Your task to perform on an android device: open the mobile data screen to see how much data has been used Image 0: 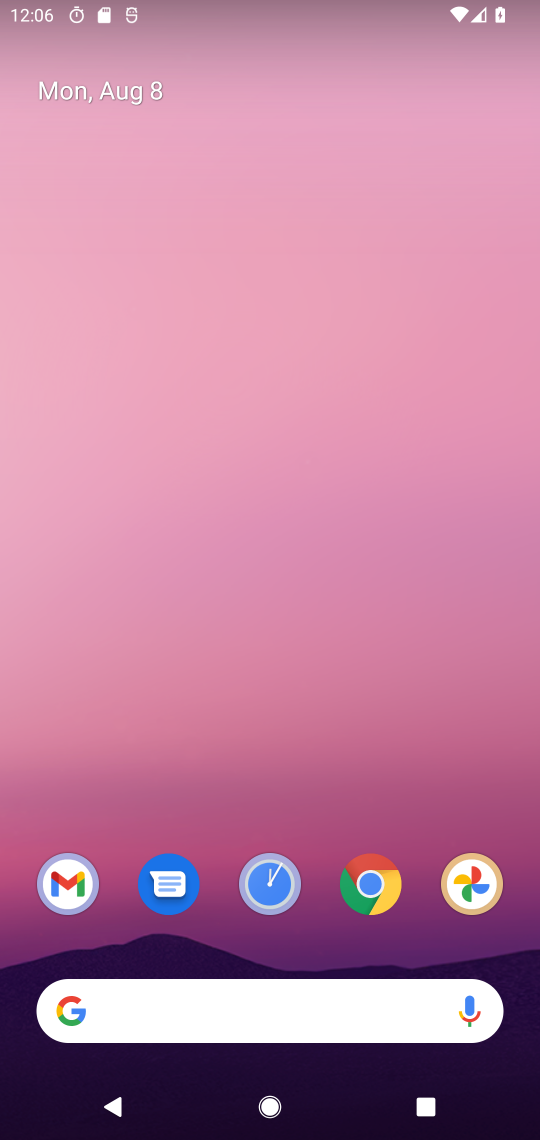
Step 0: drag from (274, 761) to (274, 225)
Your task to perform on an android device: open the mobile data screen to see how much data has been used Image 1: 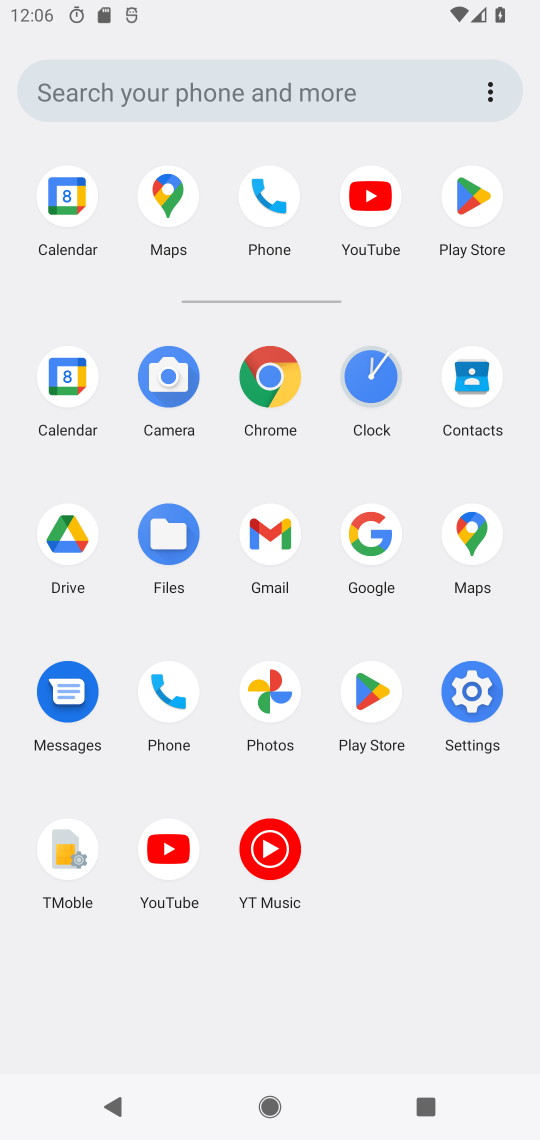
Step 1: click (476, 698)
Your task to perform on an android device: open the mobile data screen to see how much data has been used Image 2: 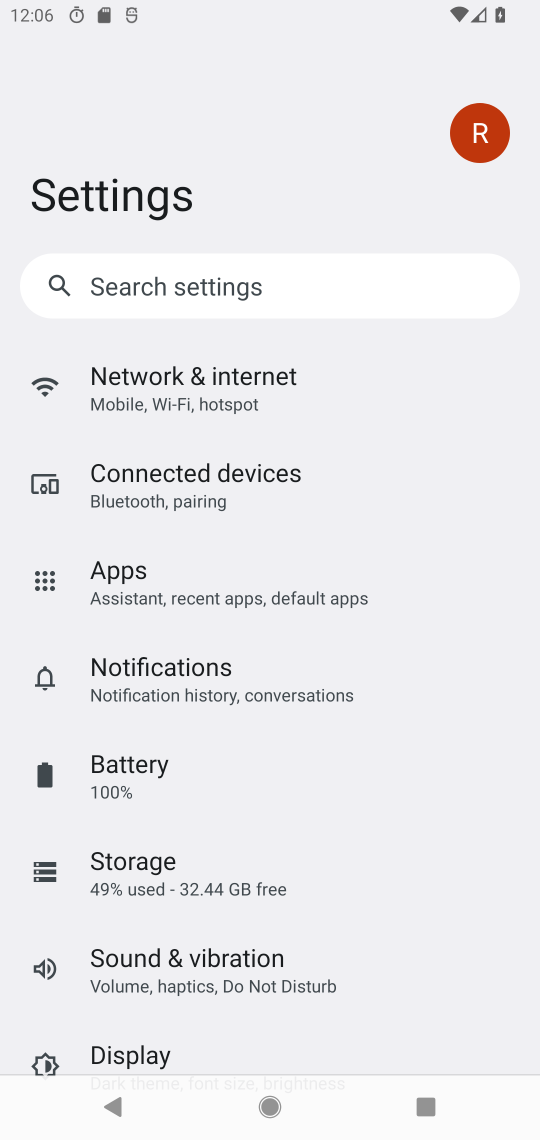
Step 2: click (167, 390)
Your task to perform on an android device: open the mobile data screen to see how much data has been used Image 3: 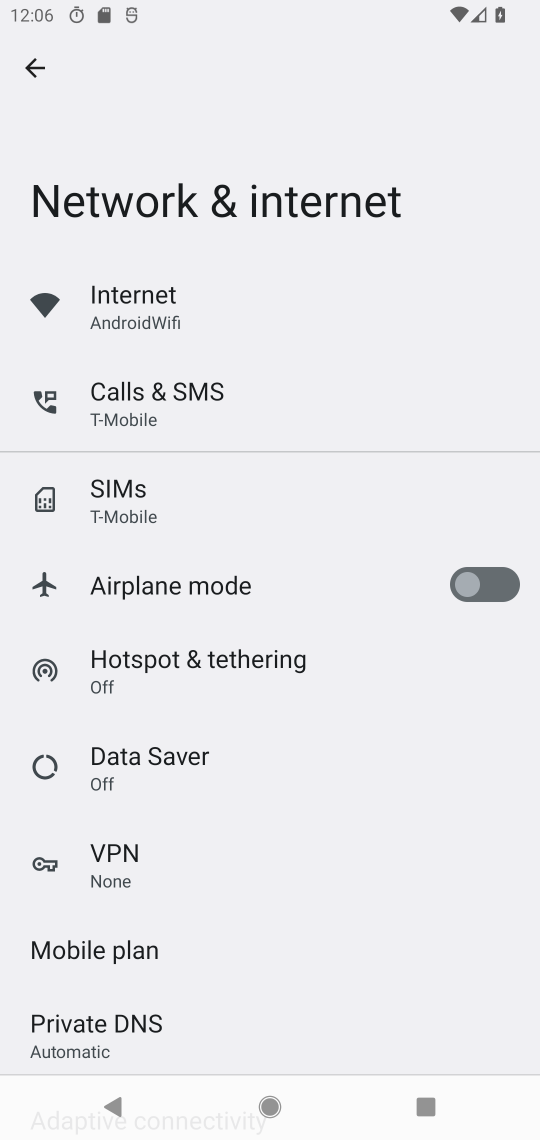
Step 3: click (129, 311)
Your task to perform on an android device: open the mobile data screen to see how much data has been used Image 4: 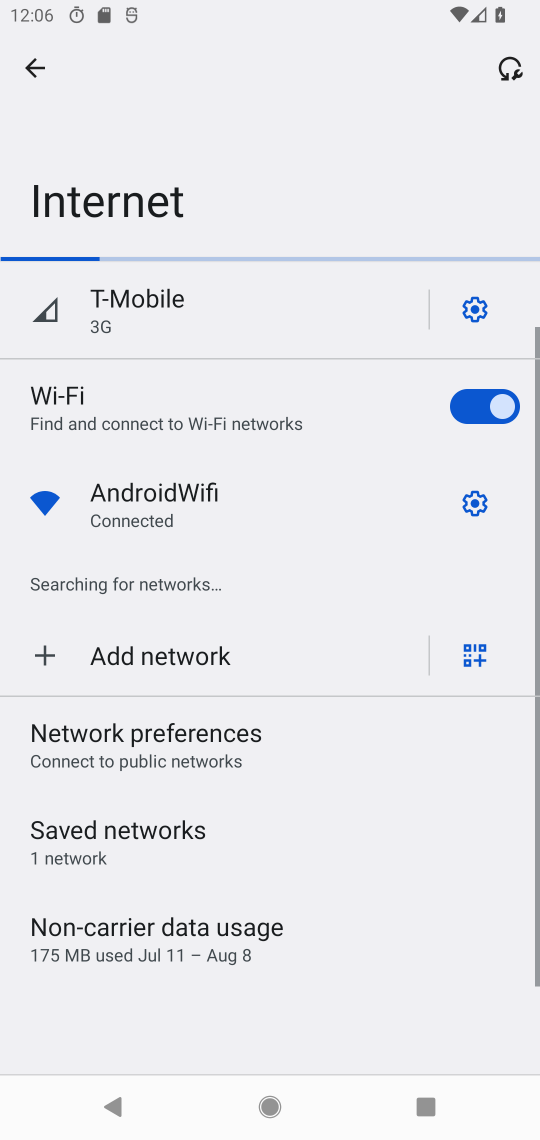
Step 4: click (159, 920)
Your task to perform on an android device: open the mobile data screen to see how much data has been used Image 5: 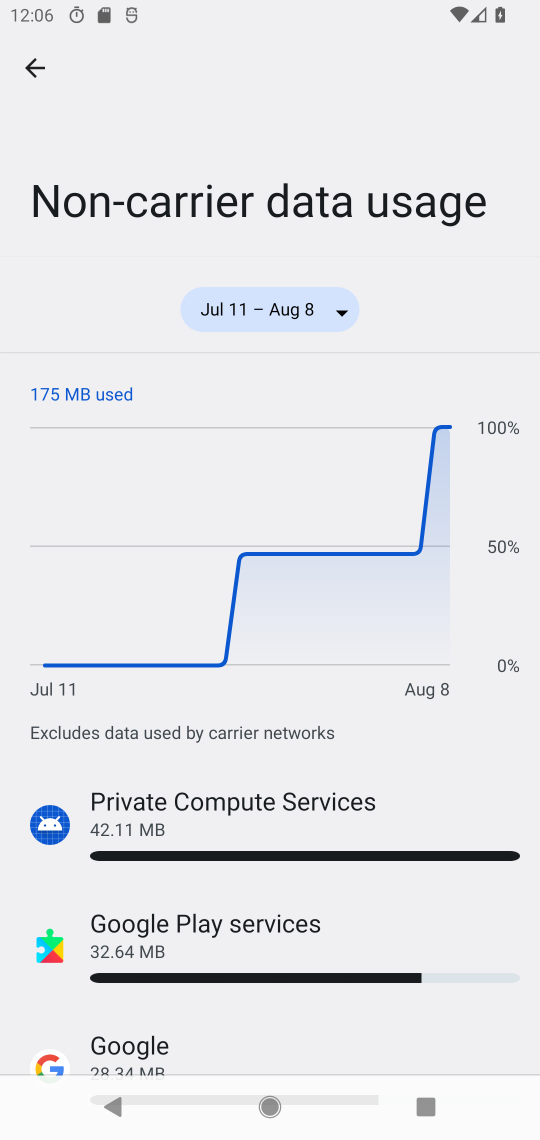
Step 5: task complete